Your task to perform on an android device: allow cookies in the chrome app Image 0: 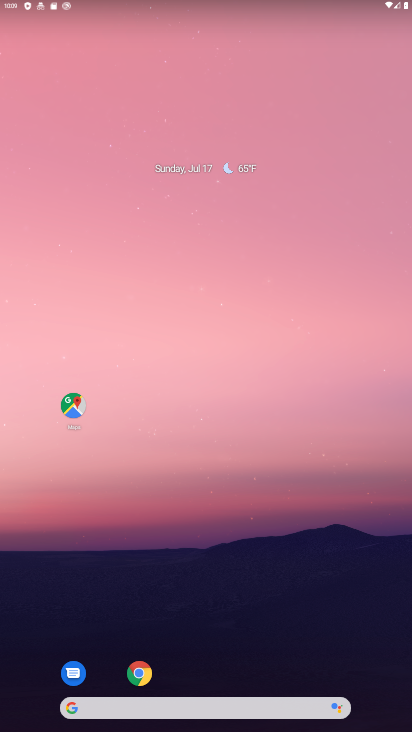
Step 0: drag from (204, 718) to (255, 161)
Your task to perform on an android device: allow cookies in the chrome app Image 1: 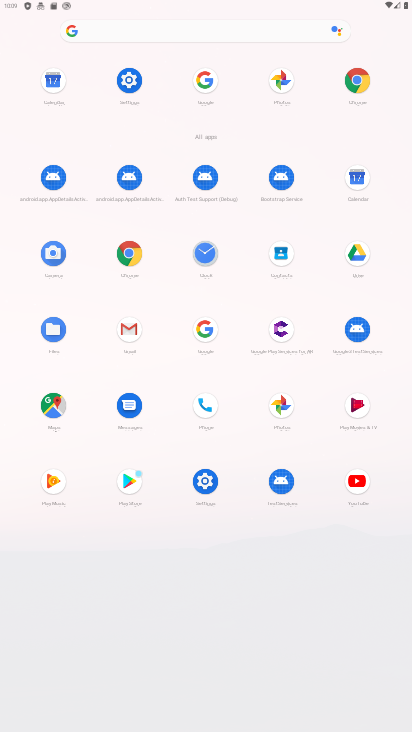
Step 1: click (131, 265)
Your task to perform on an android device: allow cookies in the chrome app Image 2: 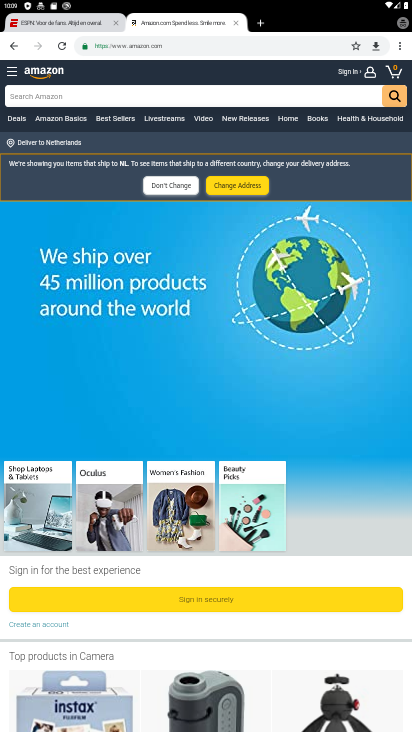
Step 2: drag from (400, 41) to (327, 307)
Your task to perform on an android device: allow cookies in the chrome app Image 3: 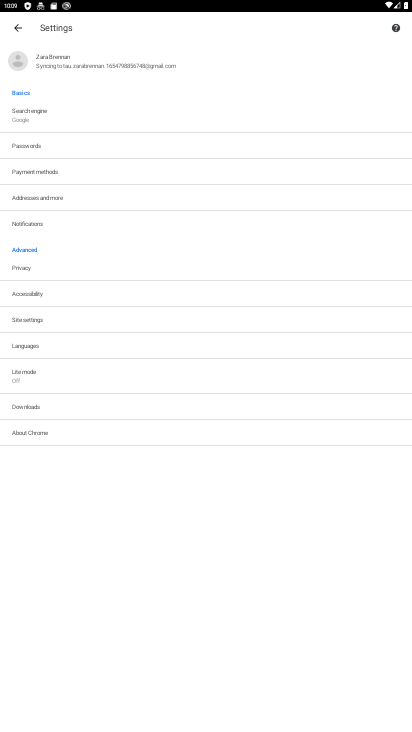
Step 3: click (63, 317)
Your task to perform on an android device: allow cookies in the chrome app Image 4: 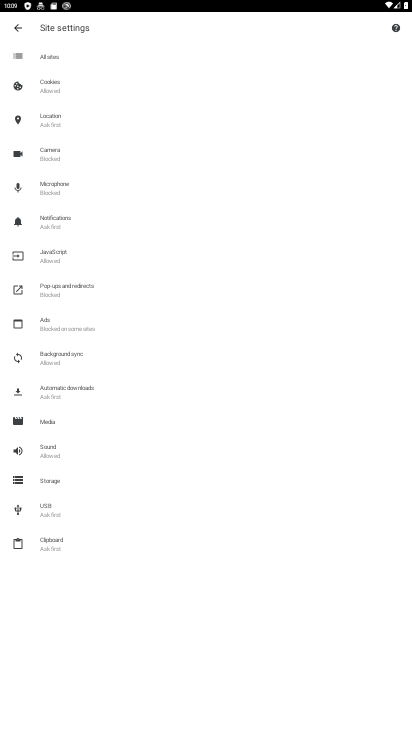
Step 4: click (120, 101)
Your task to perform on an android device: allow cookies in the chrome app Image 5: 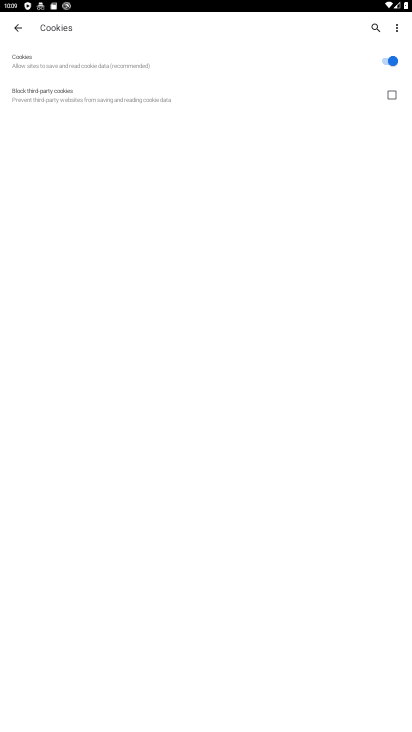
Step 5: task complete